Your task to perform on an android device: turn off notifications settings in the gmail app Image 0: 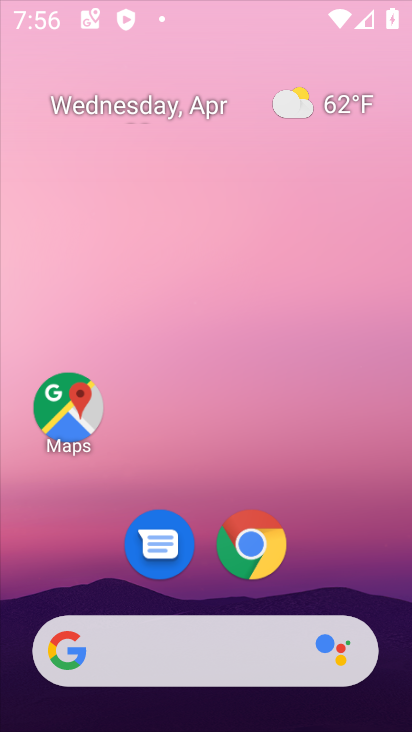
Step 0: drag from (285, 429) to (239, 157)
Your task to perform on an android device: turn off notifications settings in the gmail app Image 1: 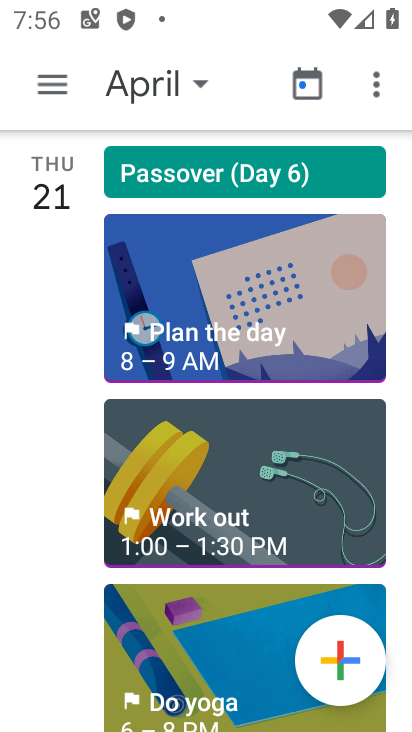
Step 1: press home button
Your task to perform on an android device: turn off notifications settings in the gmail app Image 2: 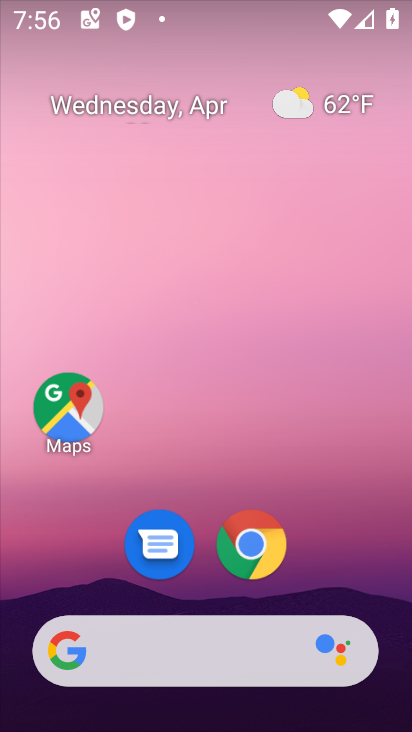
Step 2: drag from (349, 580) to (213, 127)
Your task to perform on an android device: turn off notifications settings in the gmail app Image 3: 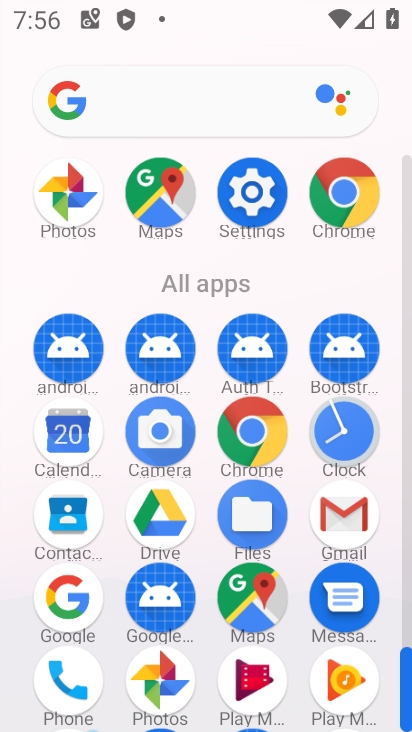
Step 3: click (348, 519)
Your task to perform on an android device: turn off notifications settings in the gmail app Image 4: 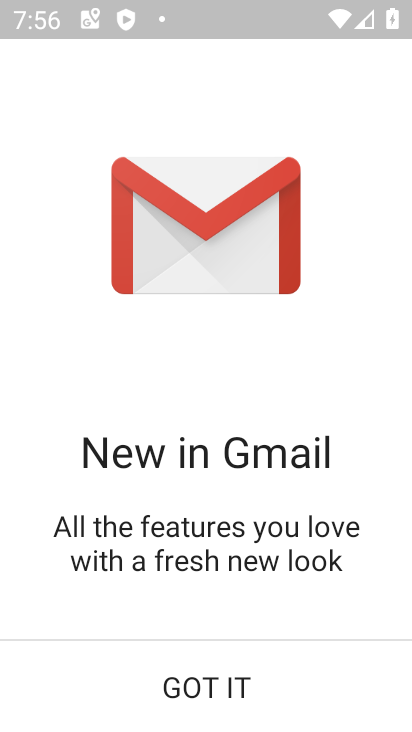
Step 4: click (216, 684)
Your task to perform on an android device: turn off notifications settings in the gmail app Image 5: 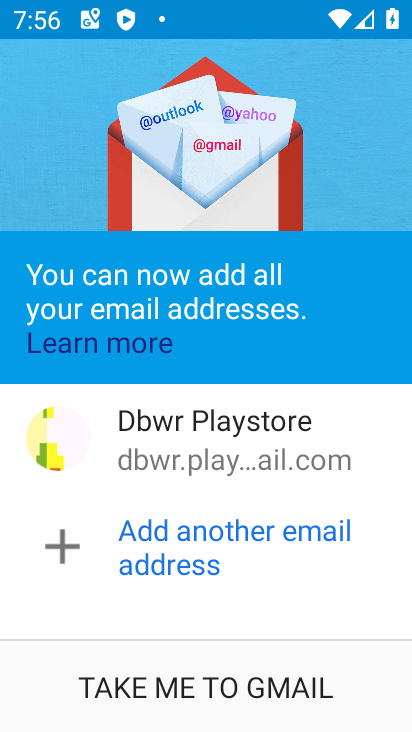
Step 5: click (214, 681)
Your task to perform on an android device: turn off notifications settings in the gmail app Image 6: 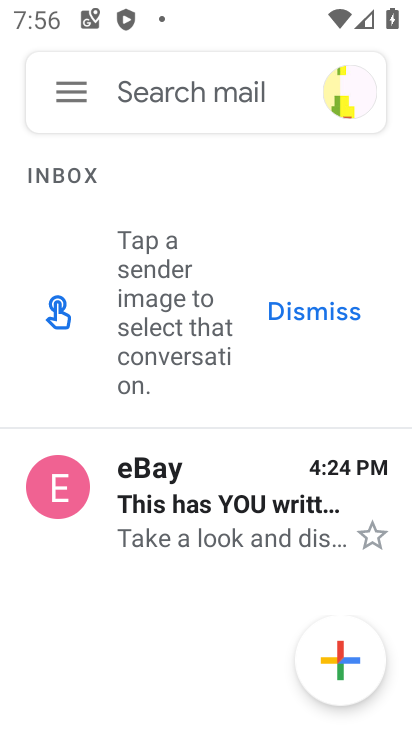
Step 6: click (74, 84)
Your task to perform on an android device: turn off notifications settings in the gmail app Image 7: 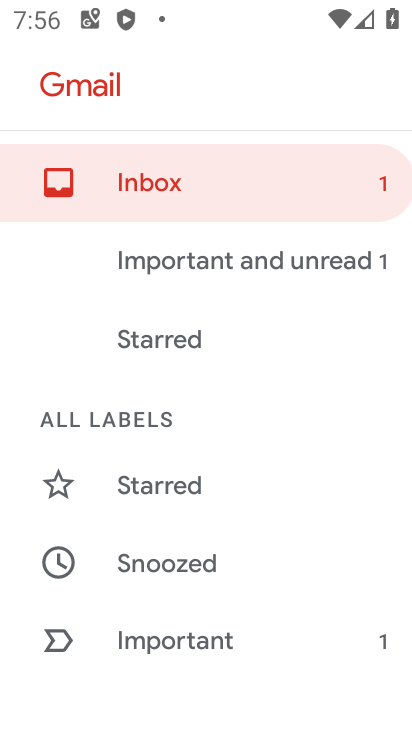
Step 7: drag from (225, 630) to (230, 227)
Your task to perform on an android device: turn off notifications settings in the gmail app Image 8: 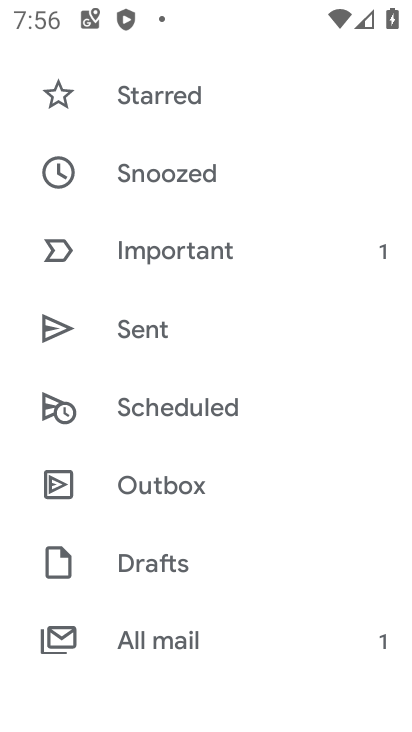
Step 8: drag from (225, 595) to (235, 192)
Your task to perform on an android device: turn off notifications settings in the gmail app Image 9: 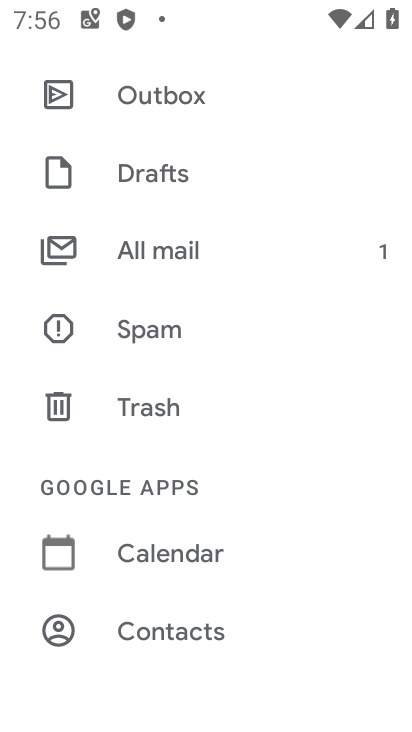
Step 9: drag from (188, 619) to (227, 327)
Your task to perform on an android device: turn off notifications settings in the gmail app Image 10: 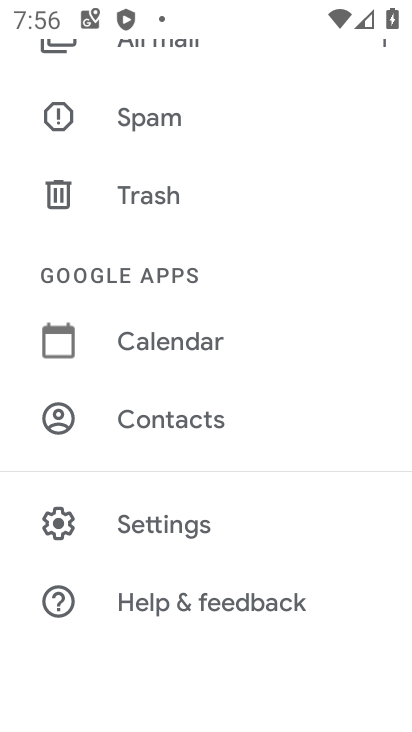
Step 10: click (185, 526)
Your task to perform on an android device: turn off notifications settings in the gmail app Image 11: 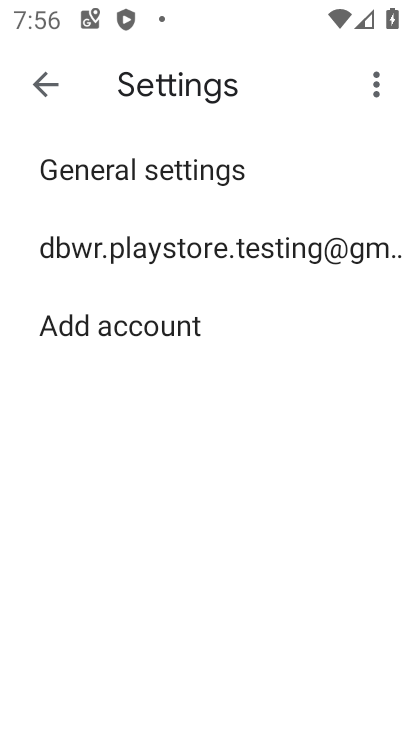
Step 11: click (204, 249)
Your task to perform on an android device: turn off notifications settings in the gmail app Image 12: 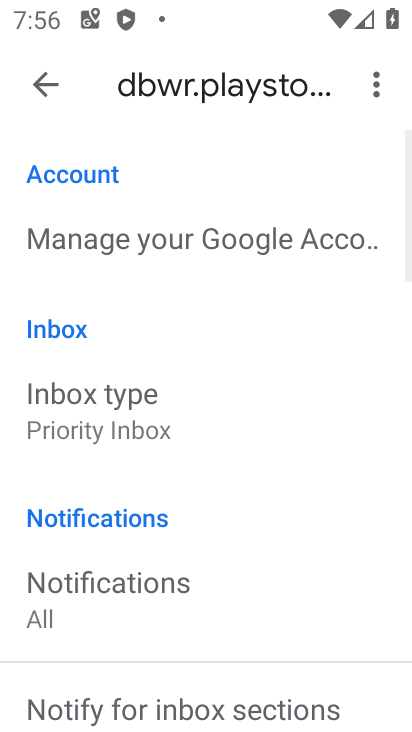
Step 12: drag from (128, 645) to (170, 264)
Your task to perform on an android device: turn off notifications settings in the gmail app Image 13: 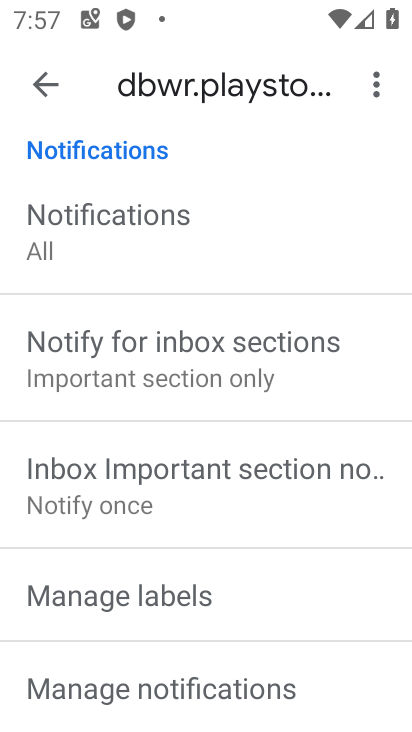
Step 13: click (150, 681)
Your task to perform on an android device: turn off notifications settings in the gmail app Image 14: 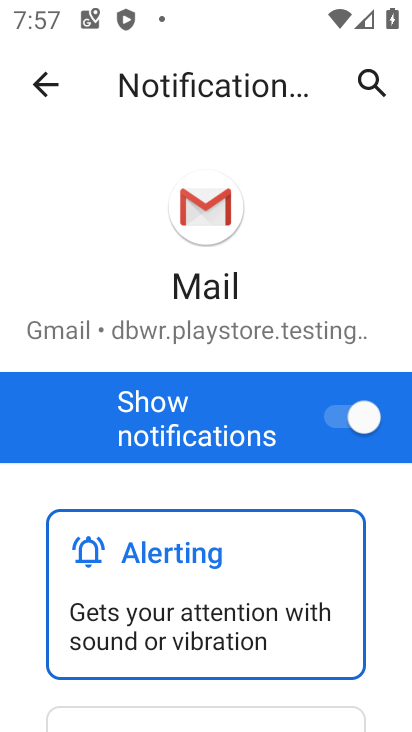
Step 14: click (368, 424)
Your task to perform on an android device: turn off notifications settings in the gmail app Image 15: 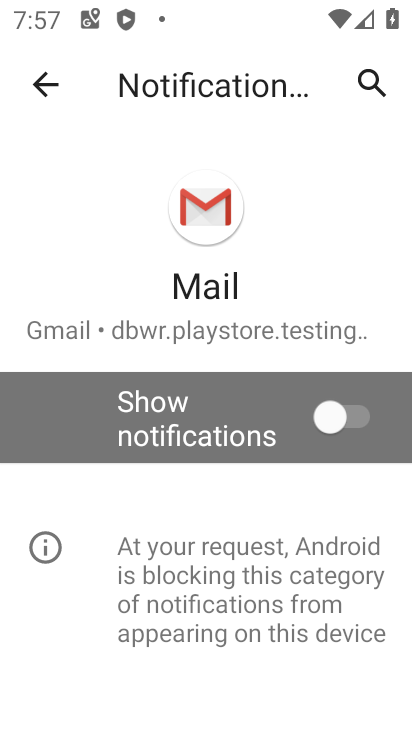
Step 15: task complete